Your task to perform on an android device: Show me popular games on the Play Store Image 0: 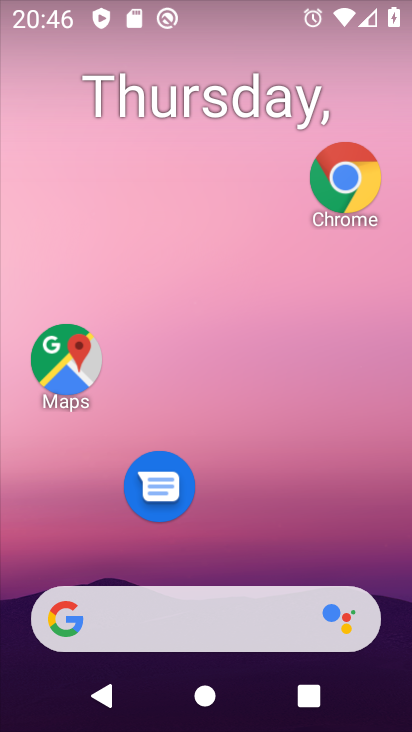
Step 0: drag from (175, 561) to (85, 30)
Your task to perform on an android device: Show me popular games on the Play Store Image 1: 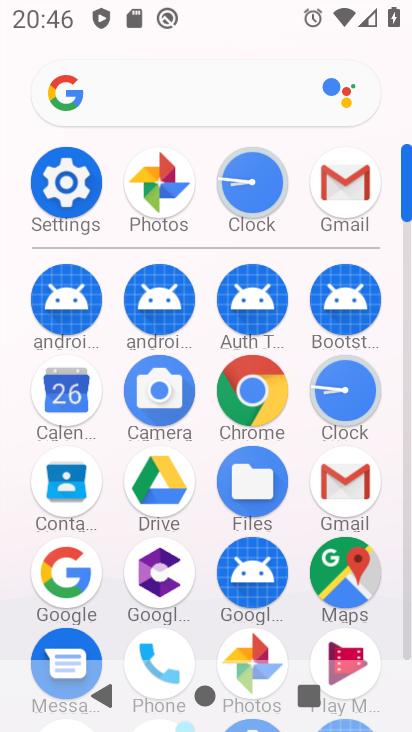
Step 1: drag from (213, 453) to (179, 144)
Your task to perform on an android device: Show me popular games on the Play Store Image 2: 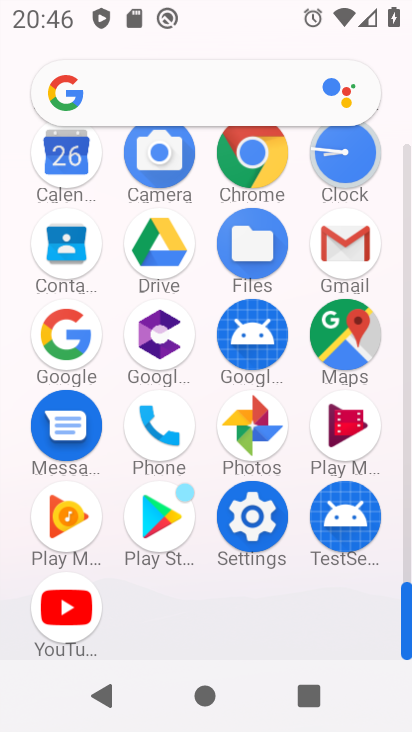
Step 2: click (174, 509)
Your task to perform on an android device: Show me popular games on the Play Store Image 3: 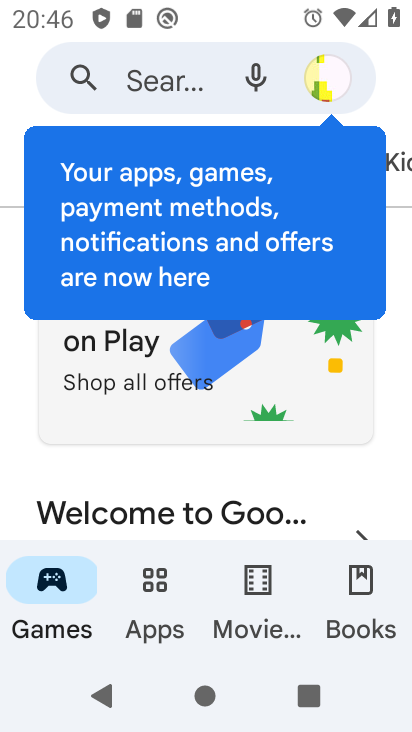
Step 3: drag from (284, 485) to (255, 122)
Your task to perform on an android device: Show me popular games on the Play Store Image 4: 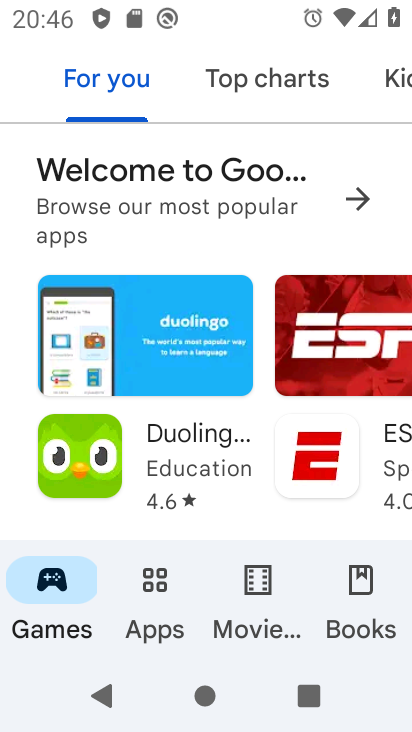
Step 4: drag from (300, 490) to (242, 90)
Your task to perform on an android device: Show me popular games on the Play Store Image 5: 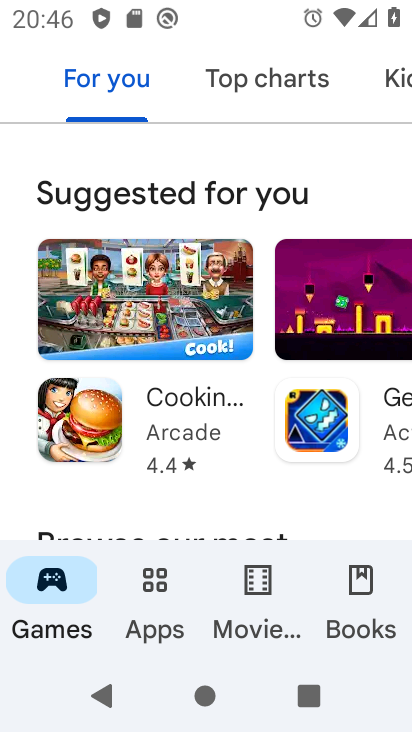
Step 5: drag from (265, 441) to (216, 165)
Your task to perform on an android device: Show me popular games on the Play Store Image 6: 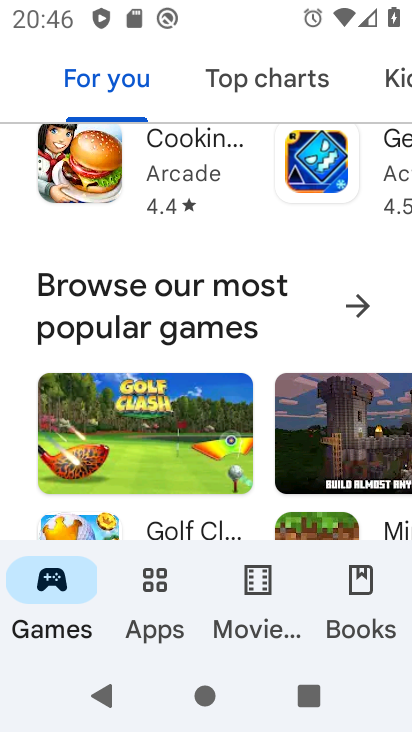
Step 6: click (368, 301)
Your task to perform on an android device: Show me popular games on the Play Store Image 7: 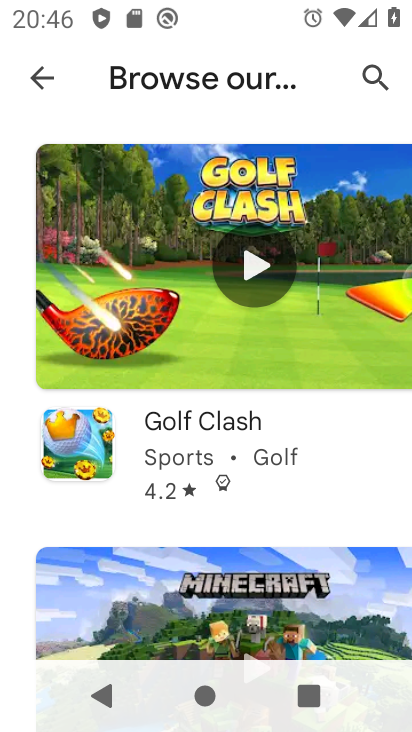
Step 7: task complete